Your task to perform on an android device: Open settings Image 0: 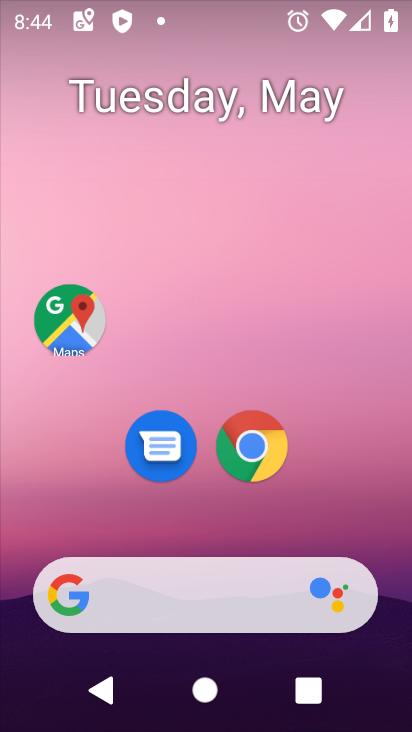
Step 0: drag from (368, 538) to (362, 11)
Your task to perform on an android device: Open settings Image 1: 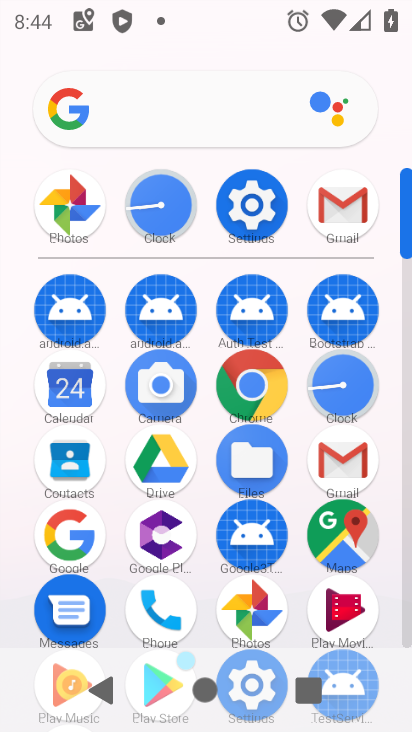
Step 1: click (249, 197)
Your task to perform on an android device: Open settings Image 2: 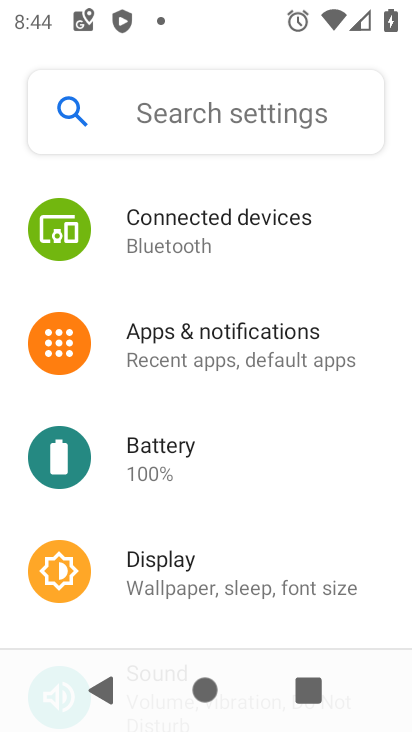
Step 2: task complete